Your task to perform on an android device: turn off priority inbox in the gmail app Image 0: 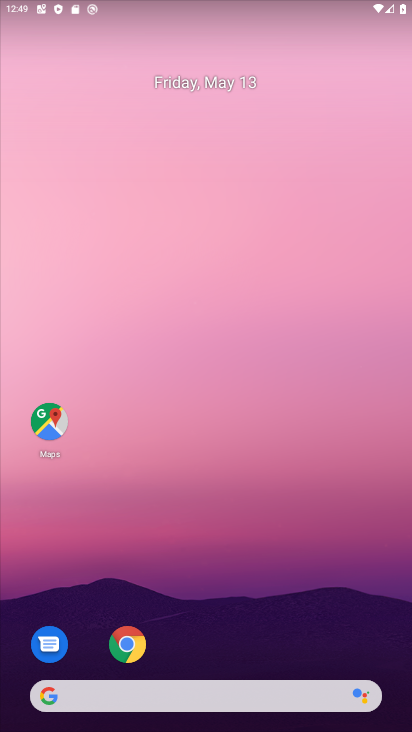
Step 0: drag from (257, 621) to (249, 10)
Your task to perform on an android device: turn off priority inbox in the gmail app Image 1: 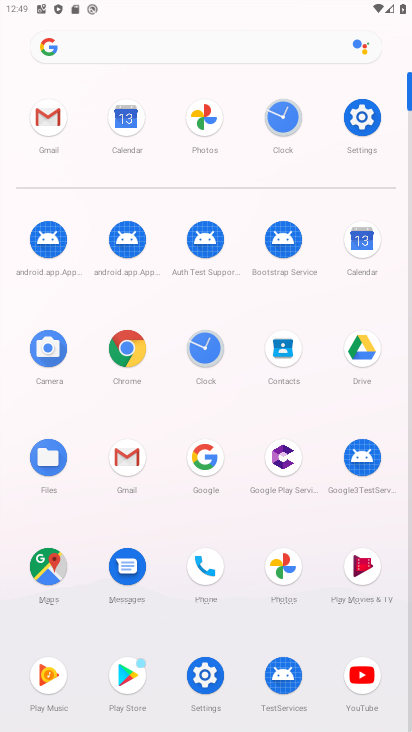
Step 1: click (47, 102)
Your task to perform on an android device: turn off priority inbox in the gmail app Image 2: 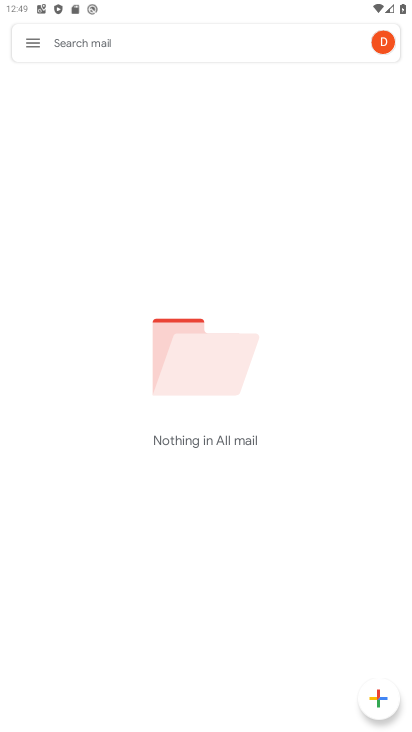
Step 2: click (32, 48)
Your task to perform on an android device: turn off priority inbox in the gmail app Image 3: 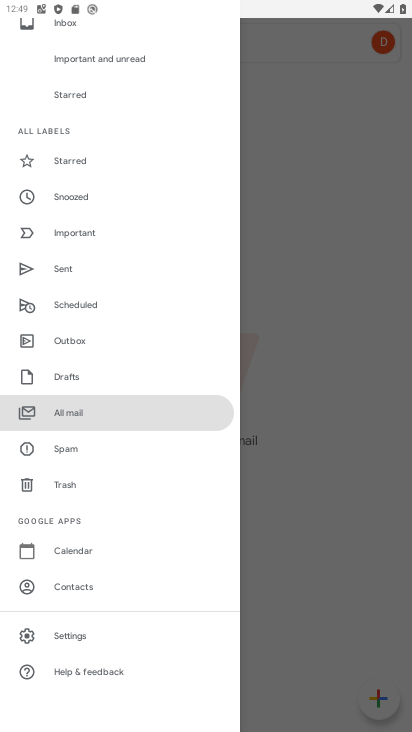
Step 3: click (83, 634)
Your task to perform on an android device: turn off priority inbox in the gmail app Image 4: 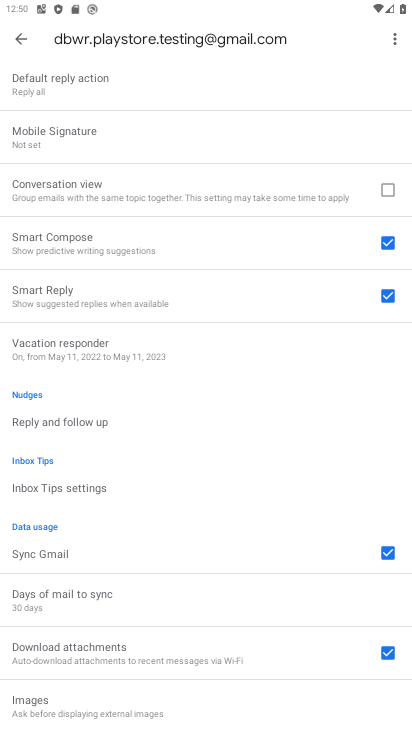
Step 4: drag from (202, 137) to (193, 510)
Your task to perform on an android device: turn off priority inbox in the gmail app Image 5: 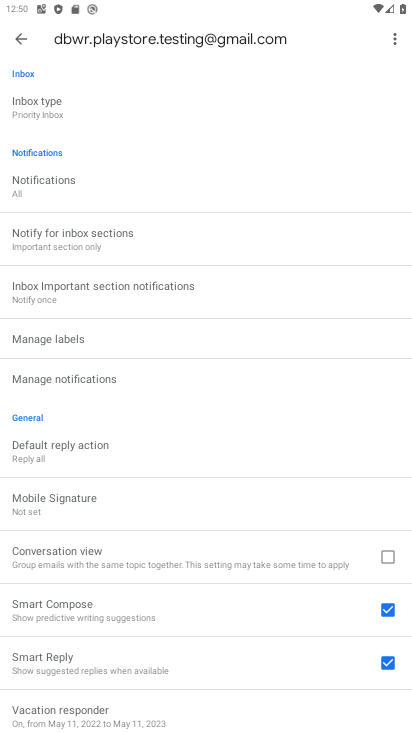
Step 5: click (47, 113)
Your task to perform on an android device: turn off priority inbox in the gmail app Image 6: 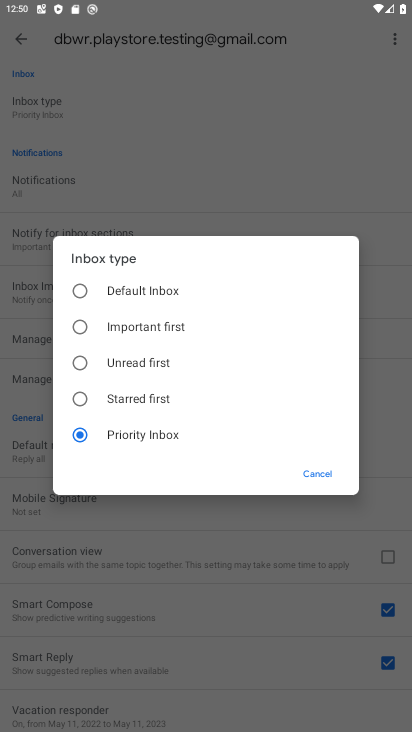
Step 6: click (116, 292)
Your task to perform on an android device: turn off priority inbox in the gmail app Image 7: 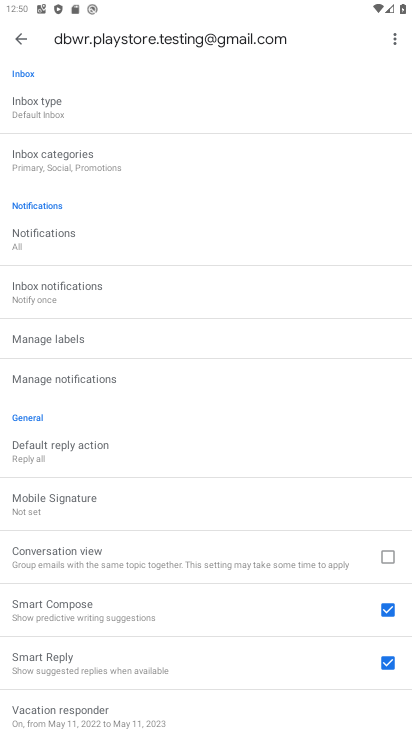
Step 7: task complete